Your task to perform on an android device: find photos in the google photos app Image 0: 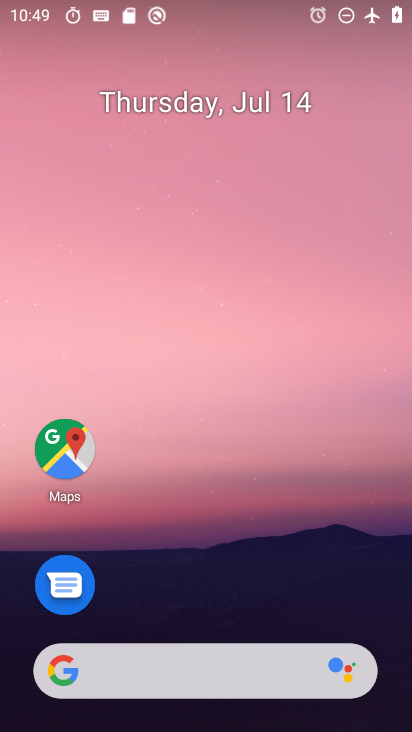
Step 0: drag from (198, 624) to (327, 36)
Your task to perform on an android device: find photos in the google photos app Image 1: 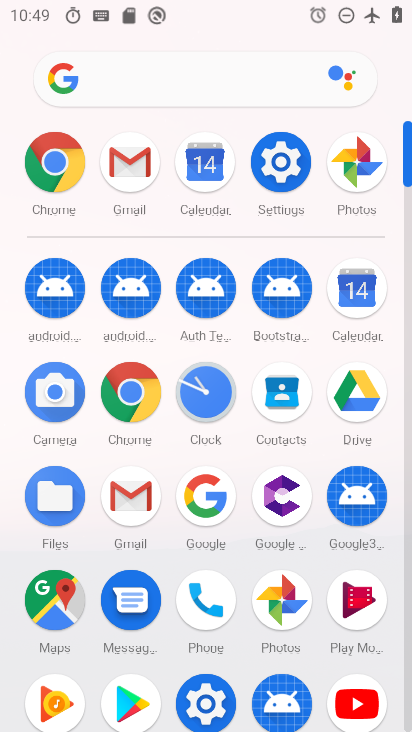
Step 1: click (296, 594)
Your task to perform on an android device: find photos in the google photos app Image 2: 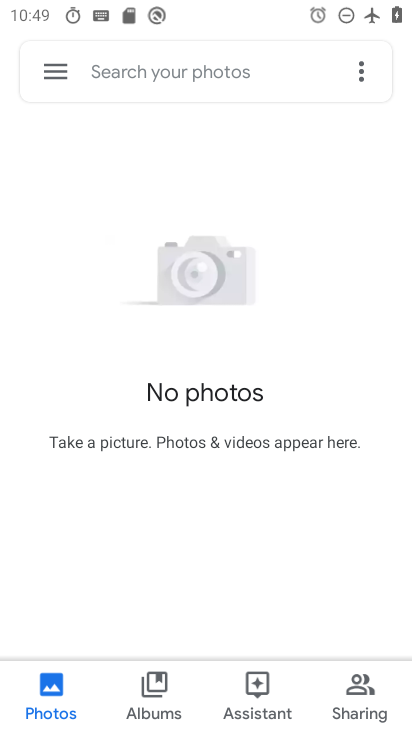
Step 2: task complete